Your task to perform on an android device: all mails in gmail Image 0: 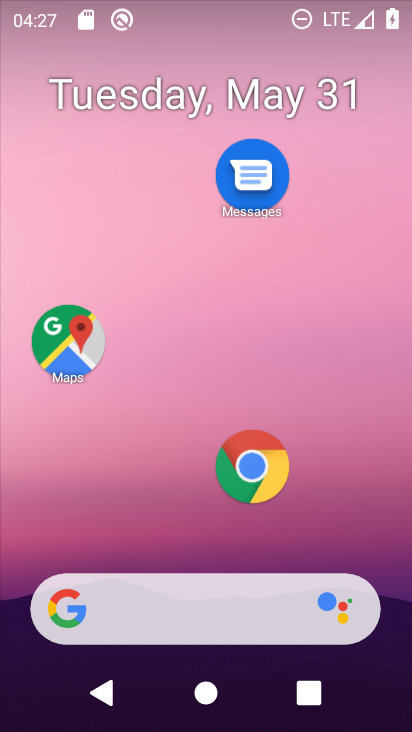
Step 0: drag from (170, 558) to (161, 65)
Your task to perform on an android device: all mails in gmail Image 1: 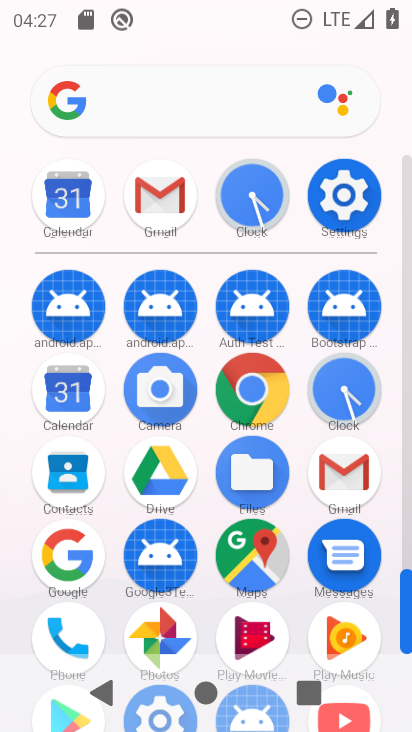
Step 1: click (164, 182)
Your task to perform on an android device: all mails in gmail Image 2: 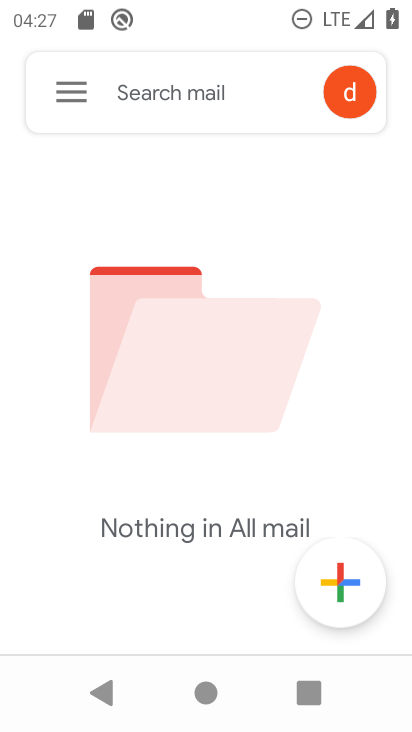
Step 2: task complete